Your task to perform on an android device: turn off location Image 0: 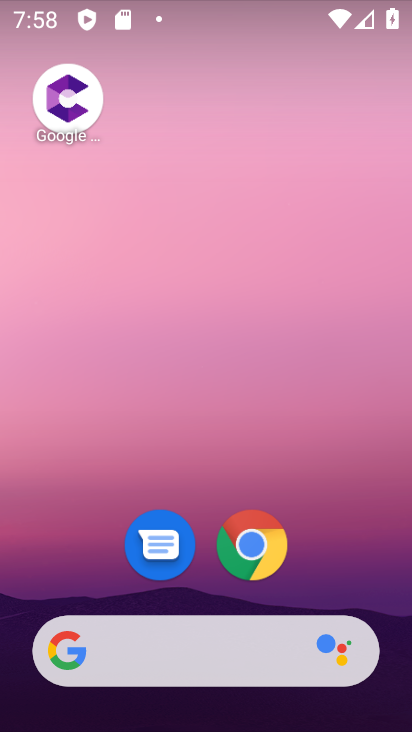
Step 0: drag from (364, 564) to (209, 115)
Your task to perform on an android device: turn off location Image 1: 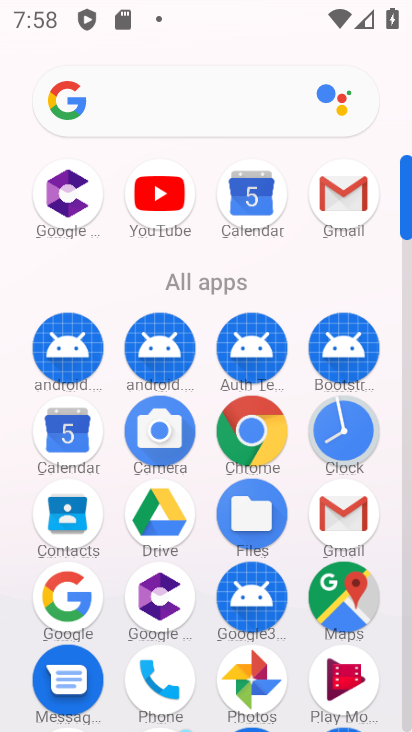
Step 1: drag from (304, 289) to (312, 47)
Your task to perform on an android device: turn off location Image 2: 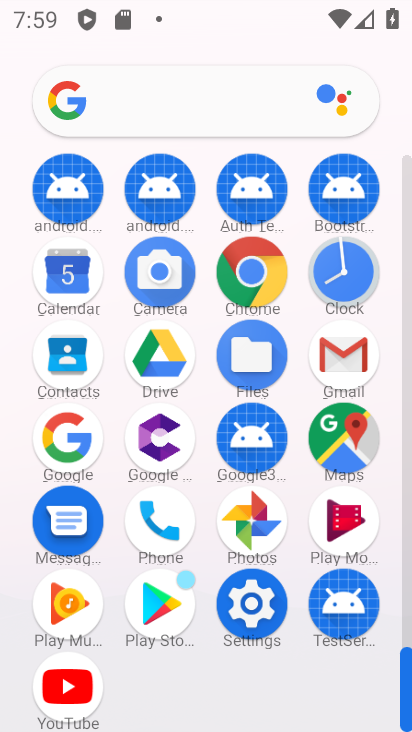
Step 2: click (254, 602)
Your task to perform on an android device: turn off location Image 3: 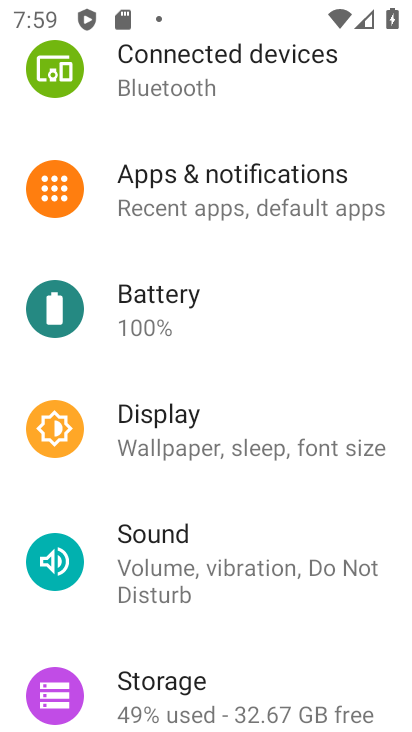
Step 3: drag from (227, 629) to (268, 510)
Your task to perform on an android device: turn off location Image 4: 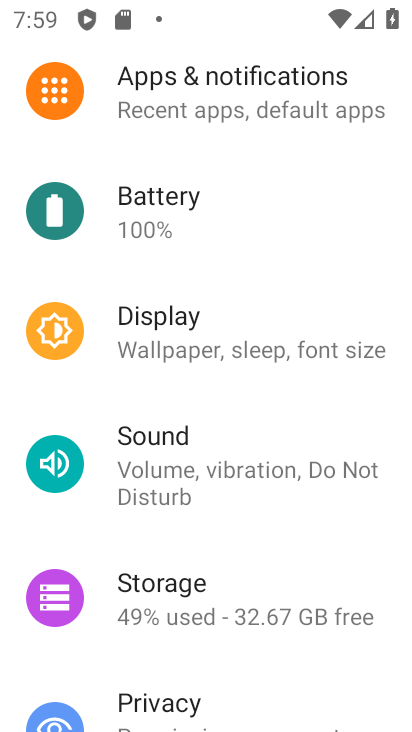
Step 4: drag from (232, 537) to (245, 378)
Your task to perform on an android device: turn off location Image 5: 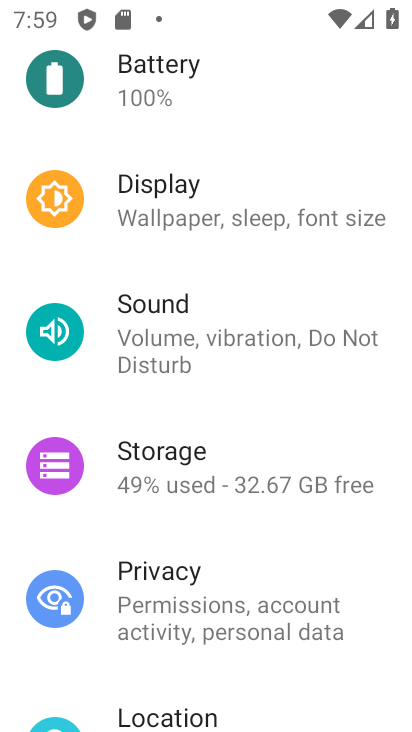
Step 5: drag from (242, 416) to (245, 274)
Your task to perform on an android device: turn off location Image 6: 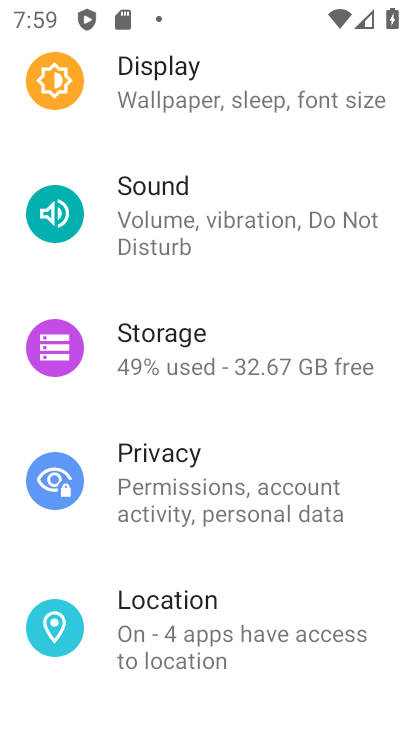
Step 6: drag from (273, 560) to (276, 430)
Your task to perform on an android device: turn off location Image 7: 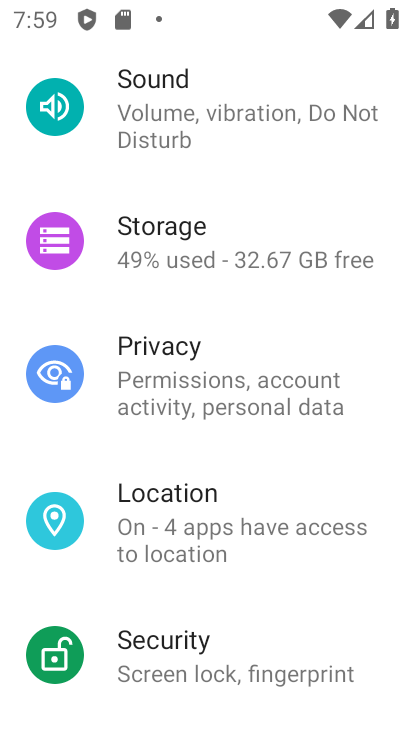
Step 7: click (307, 523)
Your task to perform on an android device: turn off location Image 8: 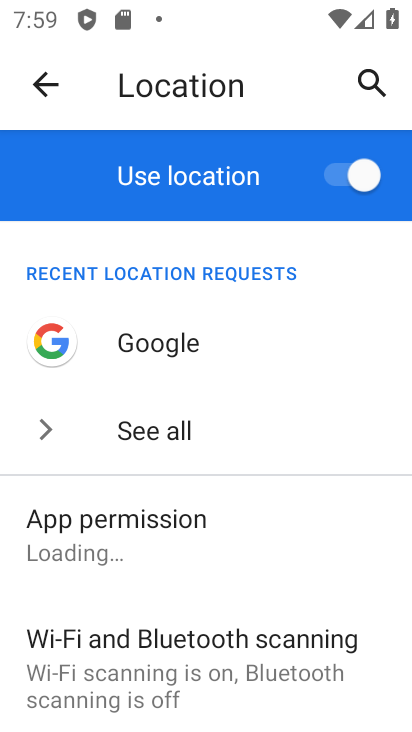
Step 8: click (330, 182)
Your task to perform on an android device: turn off location Image 9: 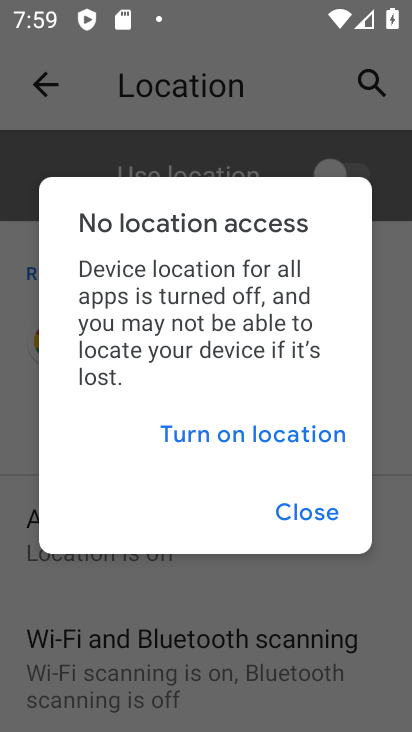
Step 9: click (309, 505)
Your task to perform on an android device: turn off location Image 10: 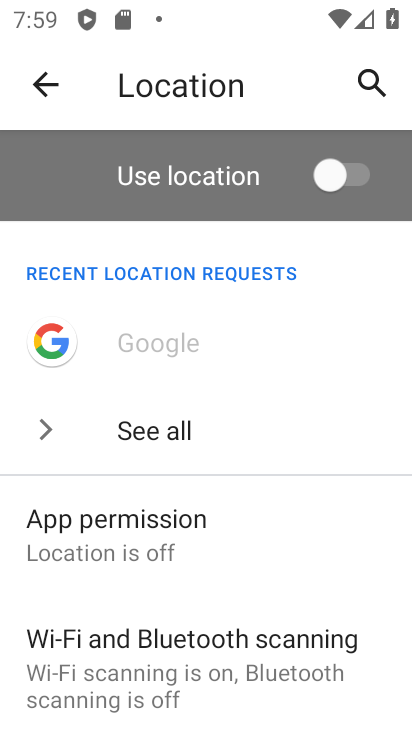
Step 10: task complete